Your task to perform on an android device: Open Google Chrome and click the shortcut for Amazon.com Image 0: 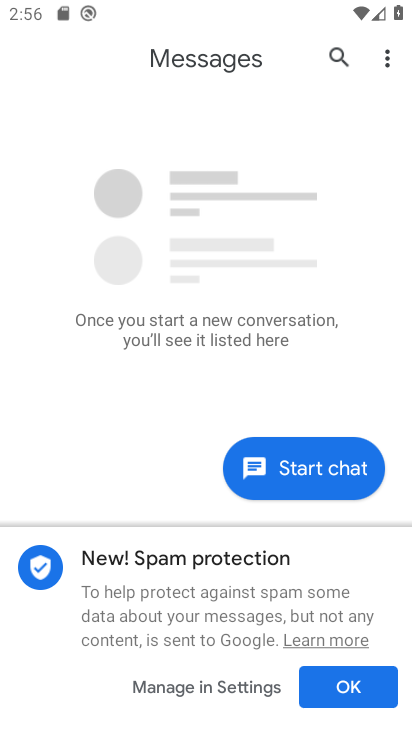
Step 0: press home button
Your task to perform on an android device: Open Google Chrome and click the shortcut for Amazon.com Image 1: 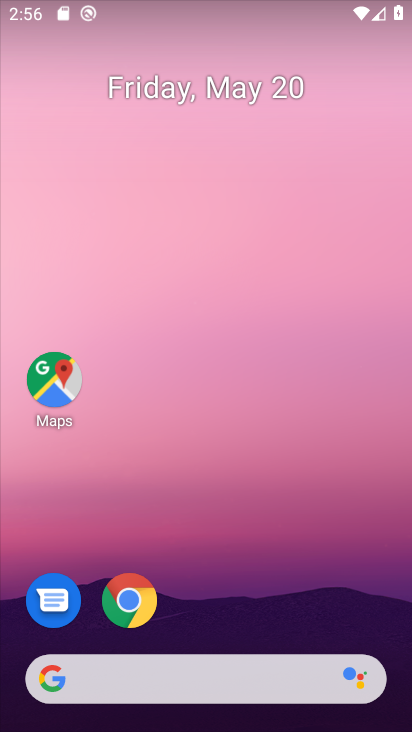
Step 1: drag from (347, 613) to (326, 205)
Your task to perform on an android device: Open Google Chrome and click the shortcut for Amazon.com Image 2: 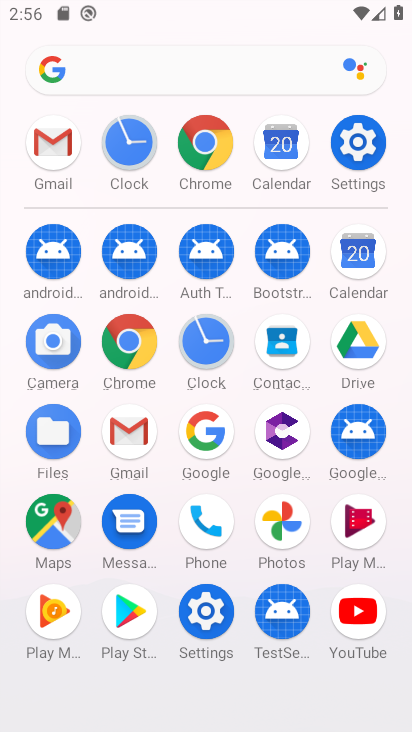
Step 2: click (139, 342)
Your task to perform on an android device: Open Google Chrome and click the shortcut for Amazon.com Image 3: 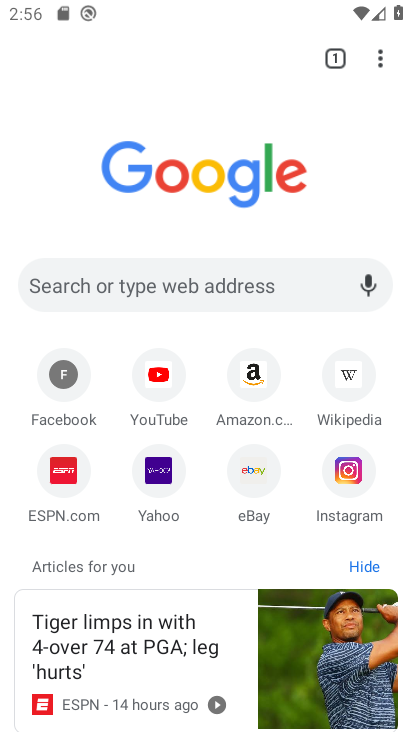
Step 3: click (252, 381)
Your task to perform on an android device: Open Google Chrome and click the shortcut for Amazon.com Image 4: 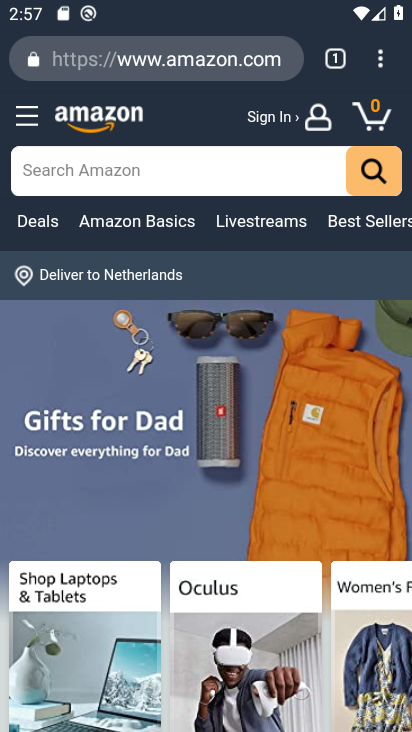
Step 4: task complete